Your task to perform on an android device: Check the news Image 0: 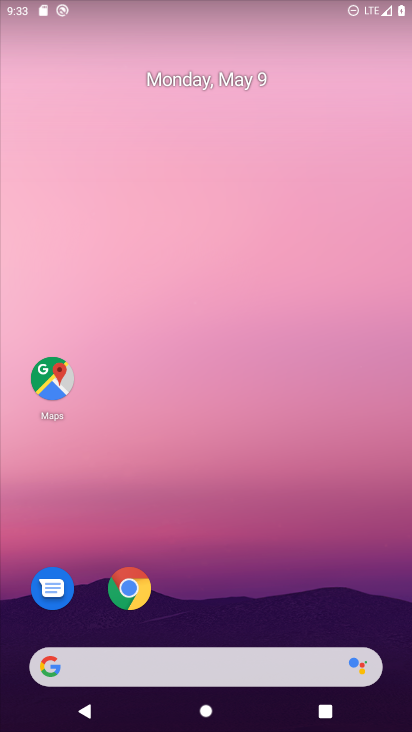
Step 0: drag from (280, 605) to (181, 45)
Your task to perform on an android device: Check the news Image 1: 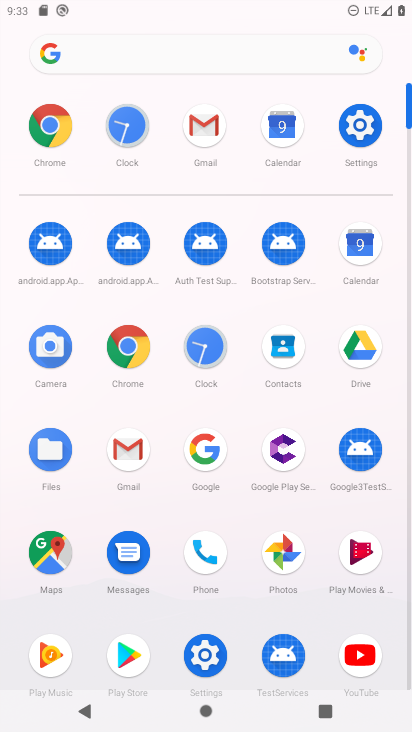
Step 1: click (111, 359)
Your task to perform on an android device: Check the news Image 2: 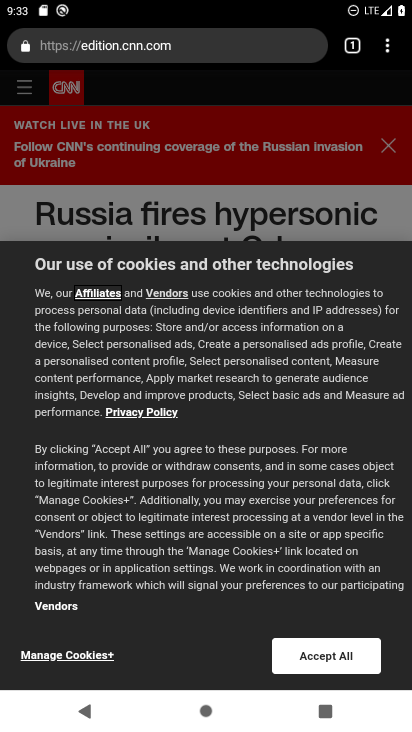
Step 2: click (347, 57)
Your task to perform on an android device: Check the news Image 3: 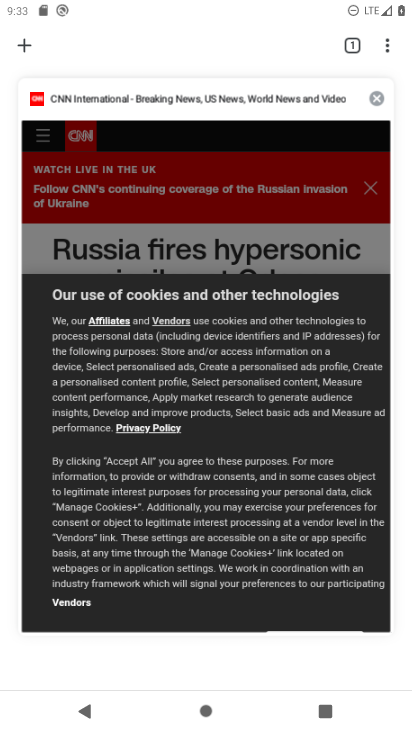
Step 3: click (23, 43)
Your task to perform on an android device: Check the news Image 4: 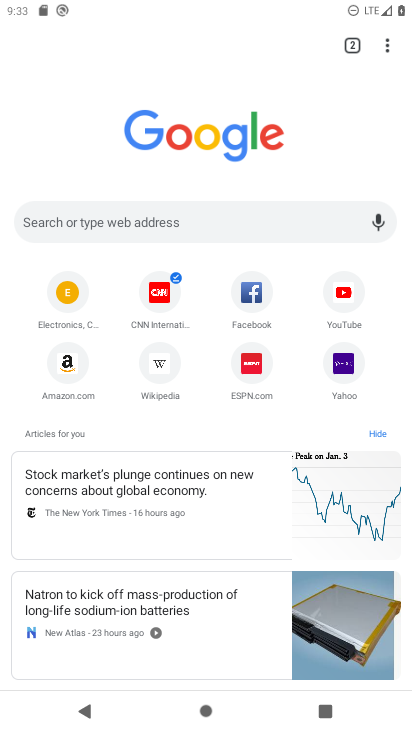
Step 4: task complete